Your task to perform on an android device: open device folders in google photos Image 0: 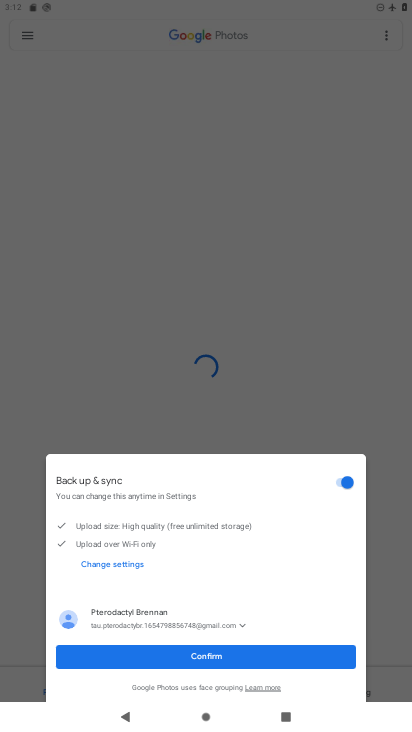
Step 0: press home button
Your task to perform on an android device: open device folders in google photos Image 1: 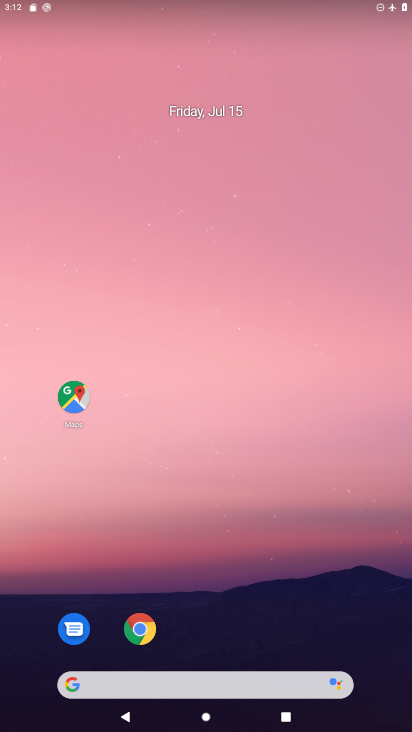
Step 1: drag from (231, 533) to (77, 0)
Your task to perform on an android device: open device folders in google photos Image 2: 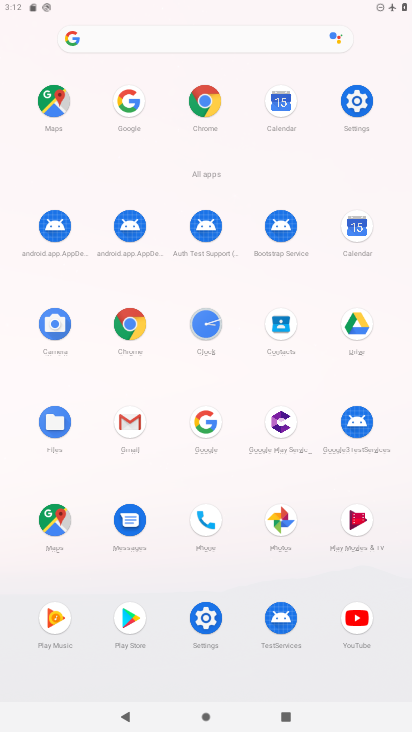
Step 2: click (278, 520)
Your task to perform on an android device: open device folders in google photos Image 3: 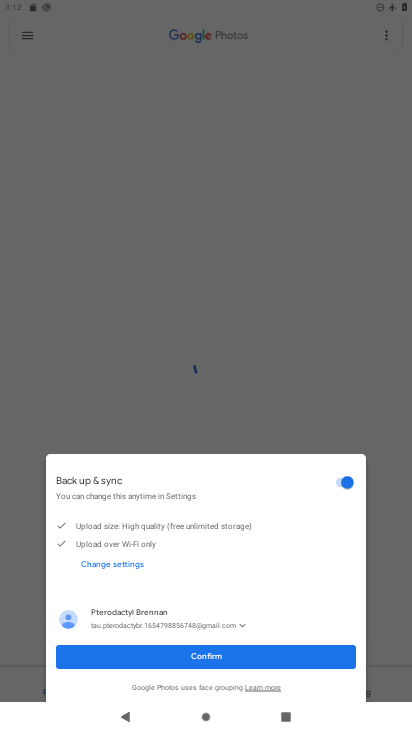
Step 3: click (203, 664)
Your task to perform on an android device: open device folders in google photos Image 4: 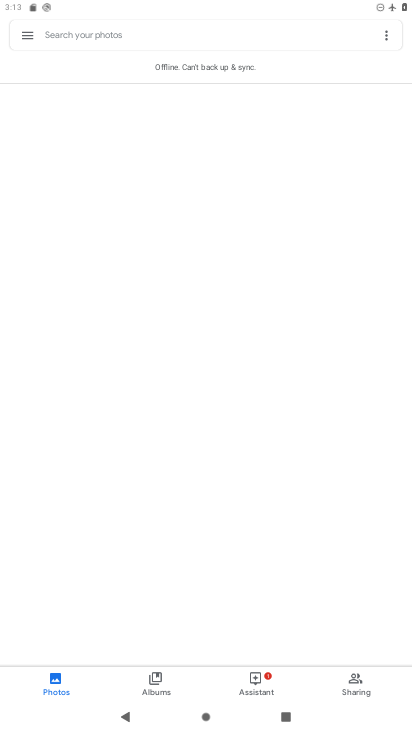
Step 4: click (24, 24)
Your task to perform on an android device: open device folders in google photos Image 5: 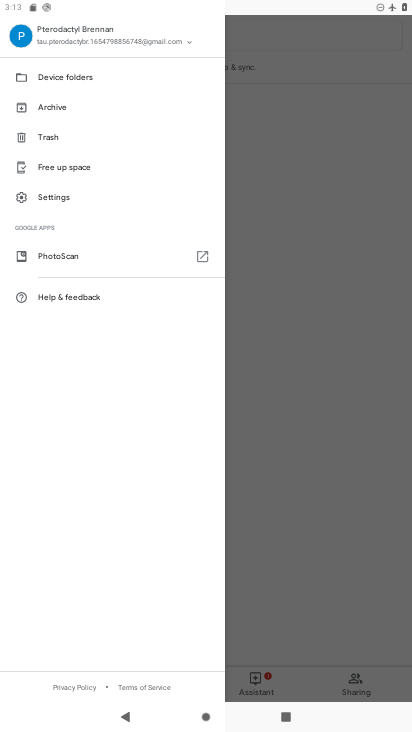
Step 5: click (55, 76)
Your task to perform on an android device: open device folders in google photos Image 6: 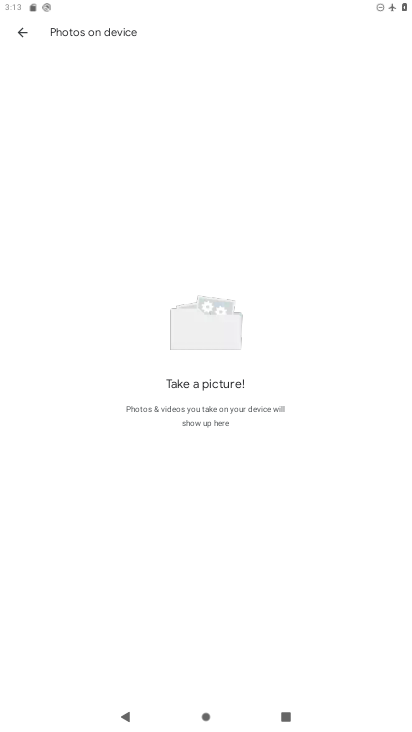
Step 6: task complete